Your task to perform on an android device: Open ESPN.com Image 0: 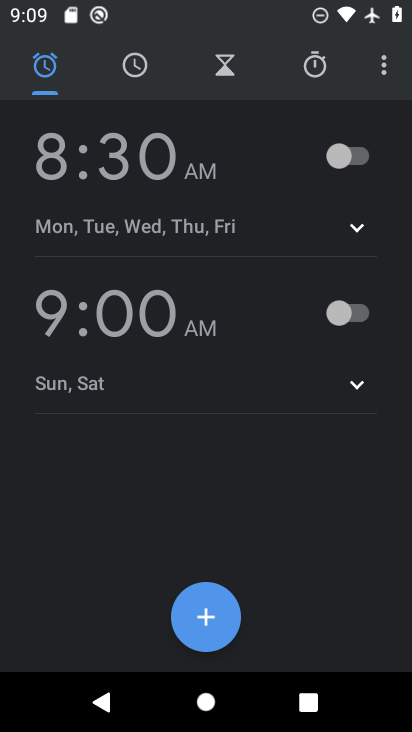
Step 0: press home button
Your task to perform on an android device: Open ESPN.com Image 1: 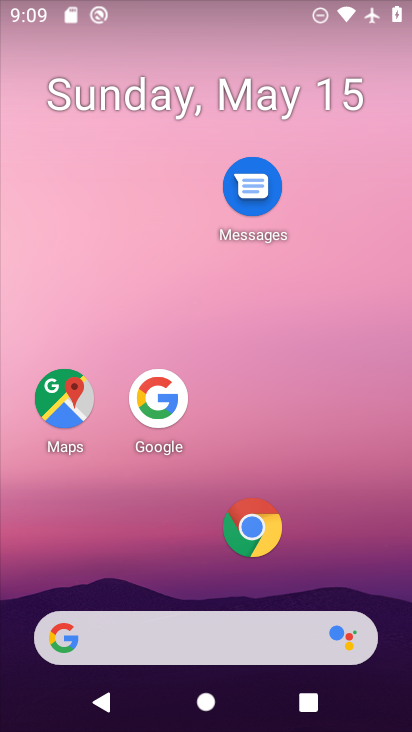
Step 1: click (256, 534)
Your task to perform on an android device: Open ESPN.com Image 2: 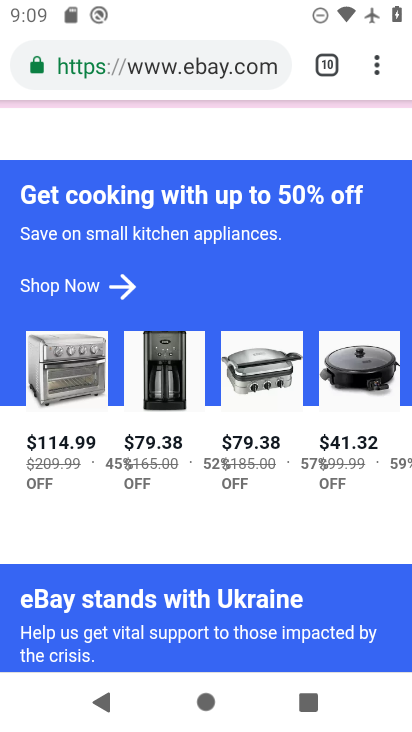
Step 2: drag from (380, 69) to (257, 136)
Your task to perform on an android device: Open ESPN.com Image 3: 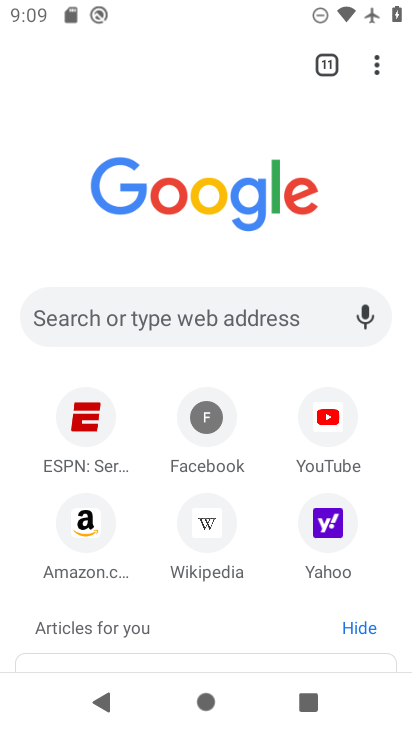
Step 3: click (83, 434)
Your task to perform on an android device: Open ESPN.com Image 4: 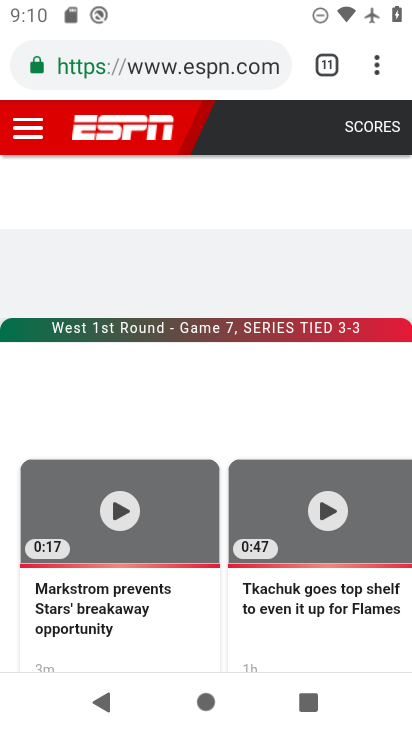
Step 4: task complete